Your task to perform on an android device: turn on the 12-hour format for clock Image 0: 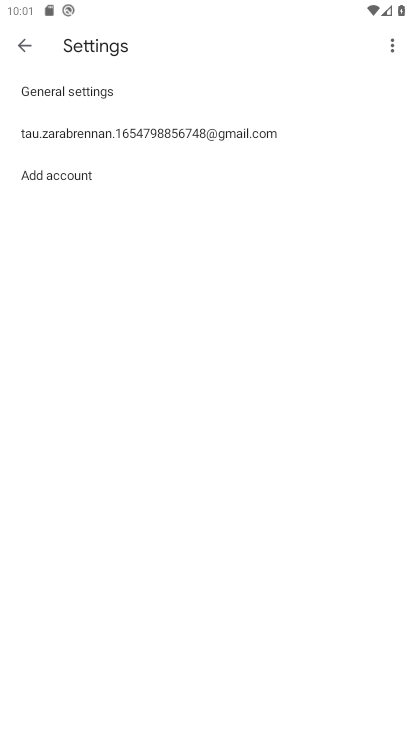
Step 0: press home button
Your task to perform on an android device: turn on the 12-hour format for clock Image 1: 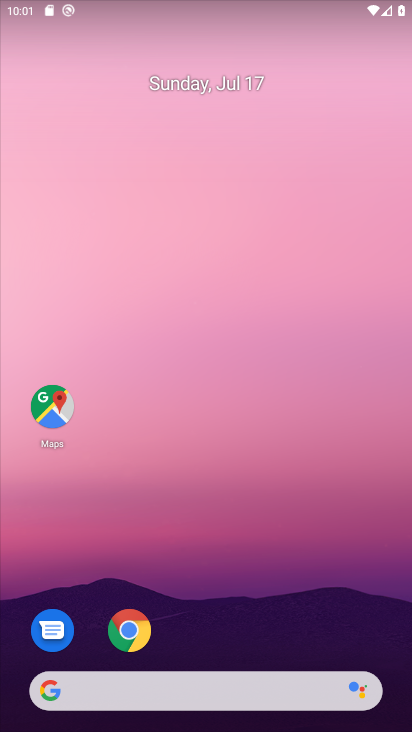
Step 1: drag from (205, 667) to (250, 17)
Your task to perform on an android device: turn on the 12-hour format for clock Image 2: 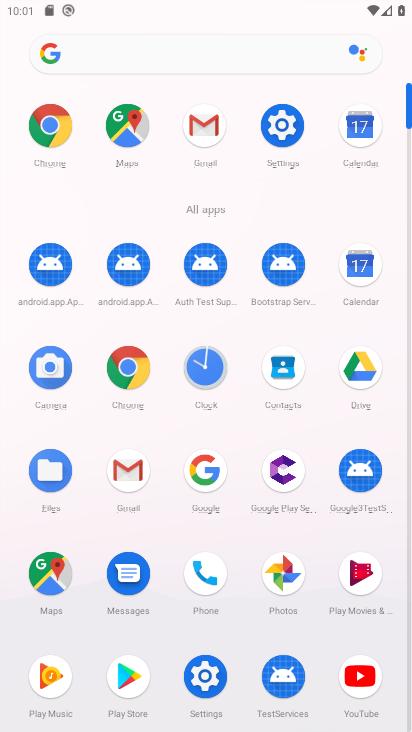
Step 2: click (198, 679)
Your task to perform on an android device: turn on the 12-hour format for clock Image 3: 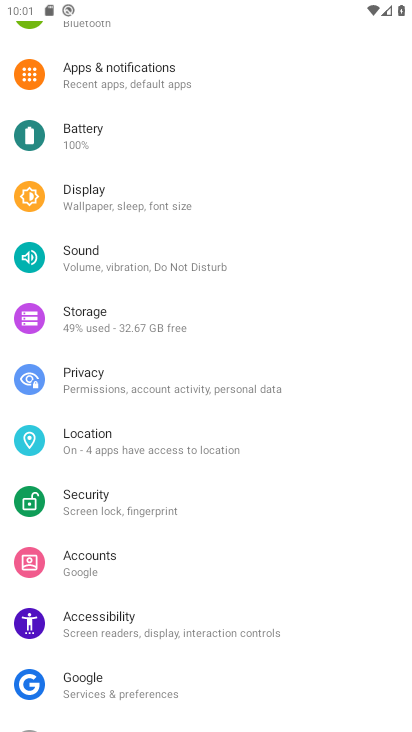
Step 3: drag from (117, 543) to (168, 225)
Your task to perform on an android device: turn on the 12-hour format for clock Image 4: 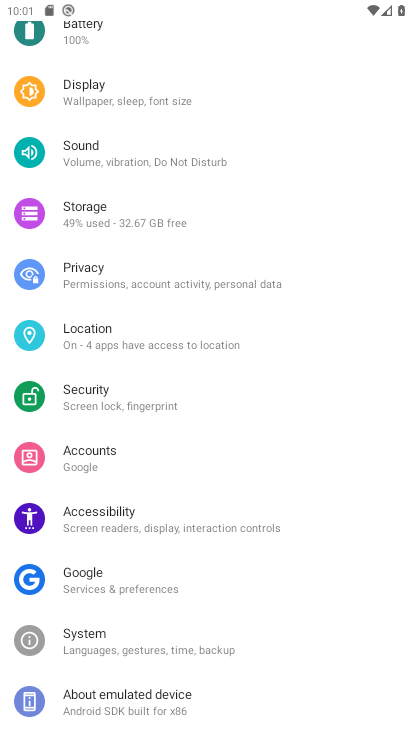
Step 4: click (126, 652)
Your task to perform on an android device: turn on the 12-hour format for clock Image 5: 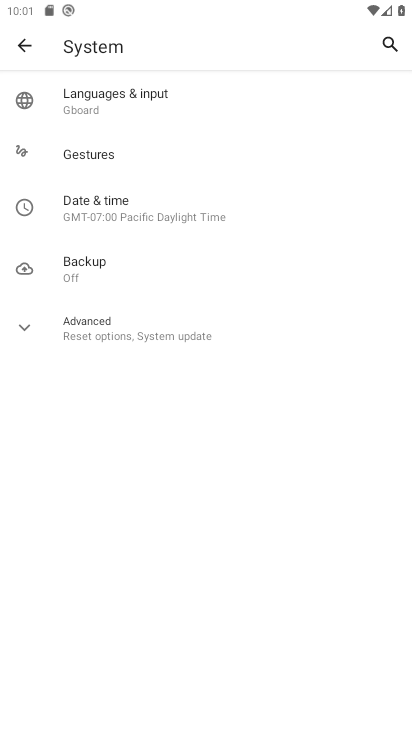
Step 5: click (100, 203)
Your task to perform on an android device: turn on the 12-hour format for clock Image 6: 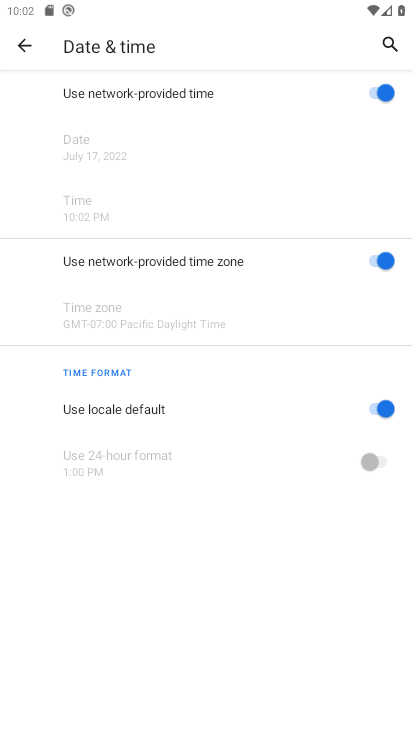
Step 6: task complete